Your task to perform on an android device: turn on location history Image 0: 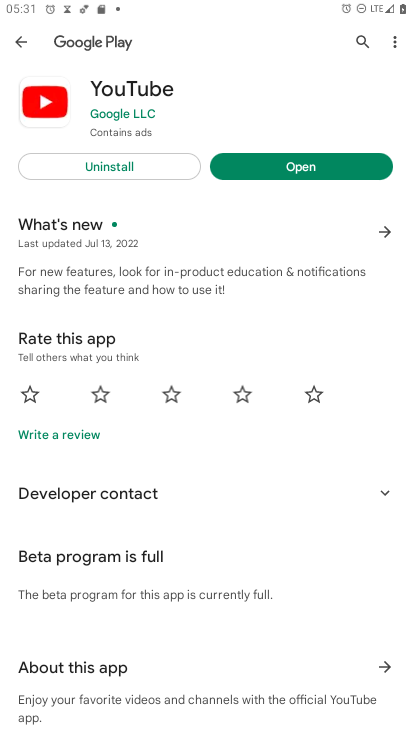
Step 0: press home button
Your task to perform on an android device: turn on location history Image 1: 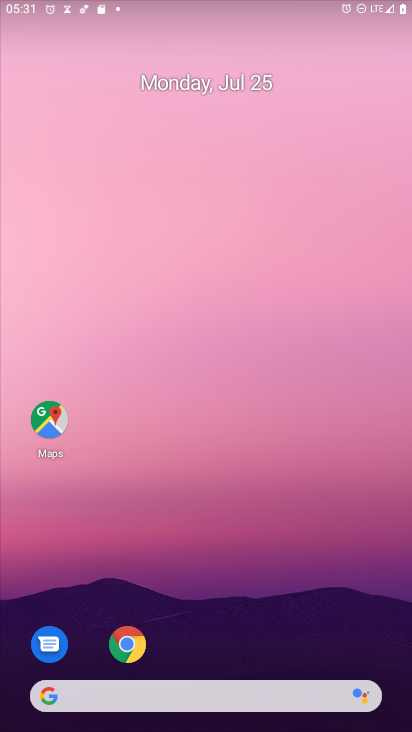
Step 1: drag from (292, 608) to (244, 71)
Your task to perform on an android device: turn on location history Image 2: 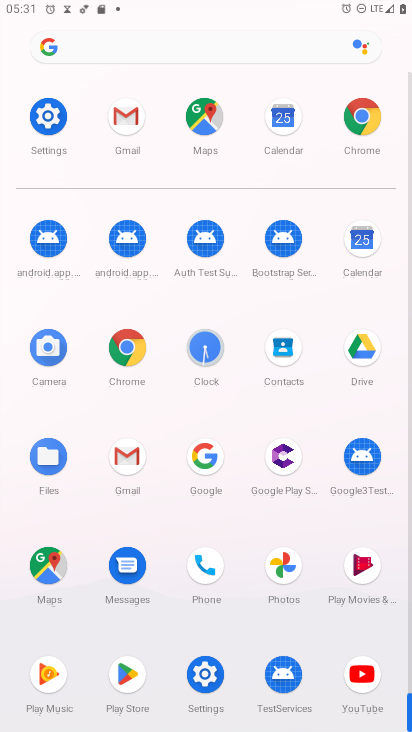
Step 2: click (39, 119)
Your task to perform on an android device: turn on location history Image 3: 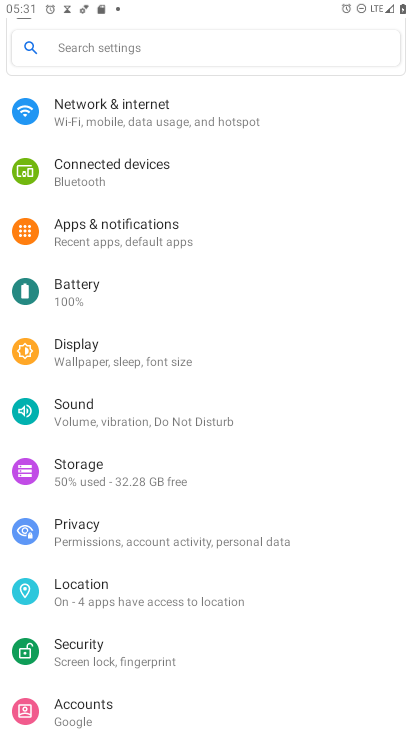
Step 3: click (83, 595)
Your task to perform on an android device: turn on location history Image 4: 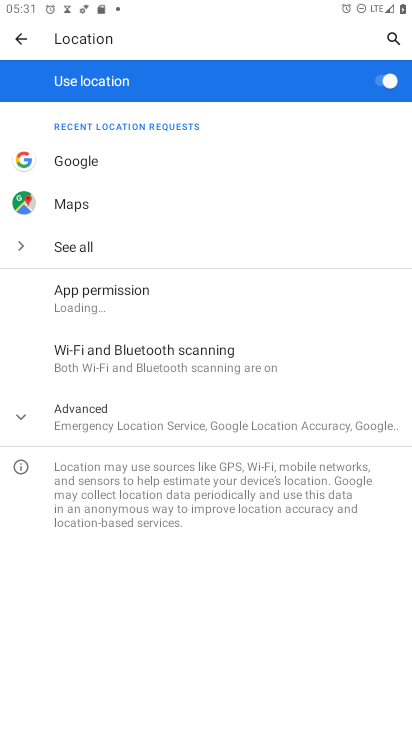
Step 4: click (35, 414)
Your task to perform on an android device: turn on location history Image 5: 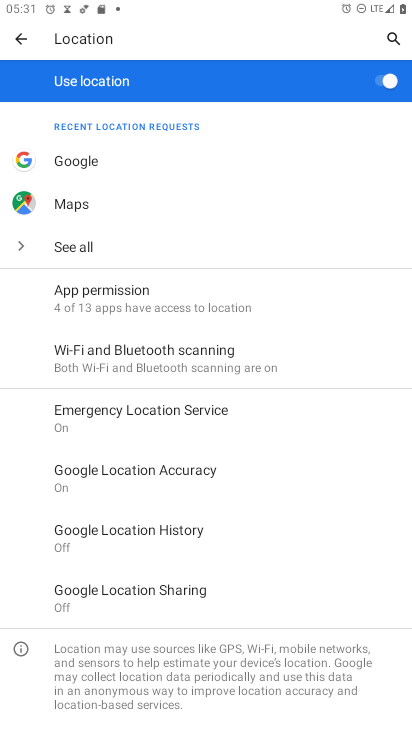
Step 5: click (144, 539)
Your task to perform on an android device: turn on location history Image 6: 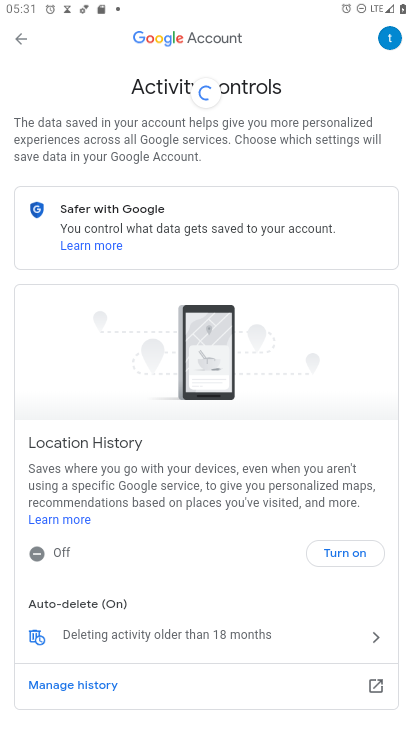
Step 6: click (355, 555)
Your task to perform on an android device: turn on location history Image 7: 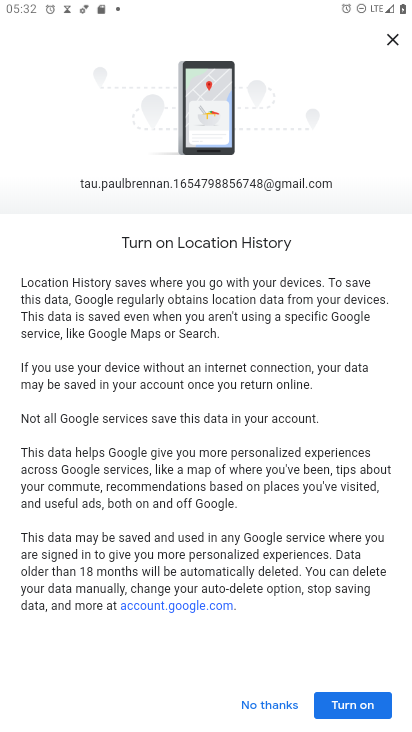
Step 7: click (350, 709)
Your task to perform on an android device: turn on location history Image 8: 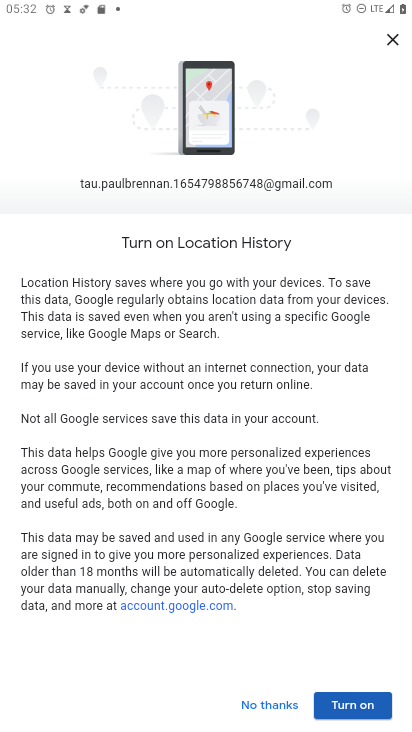
Step 8: click (361, 704)
Your task to perform on an android device: turn on location history Image 9: 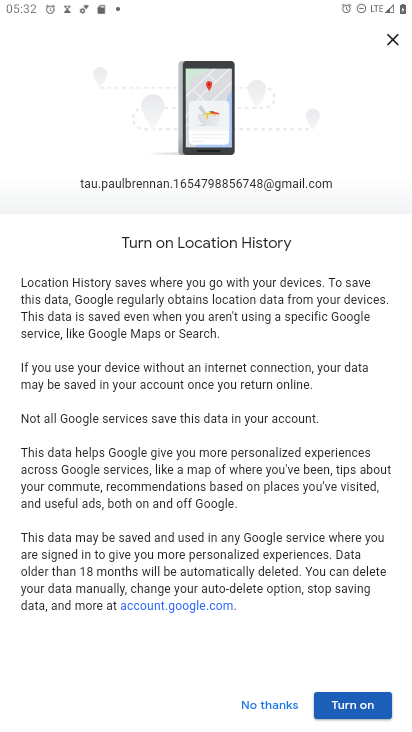
Step 9: click (379, 703)
Your task to perform on an android device: turn on location history Image 10: 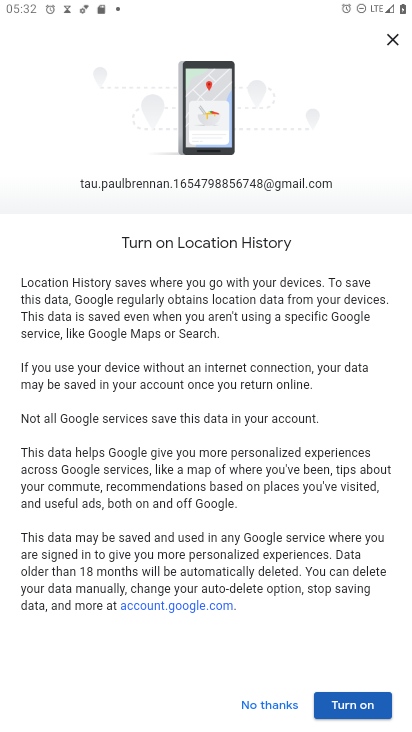
Step 10: task complete